Your task to perform on an android device: add a contact Image 0: 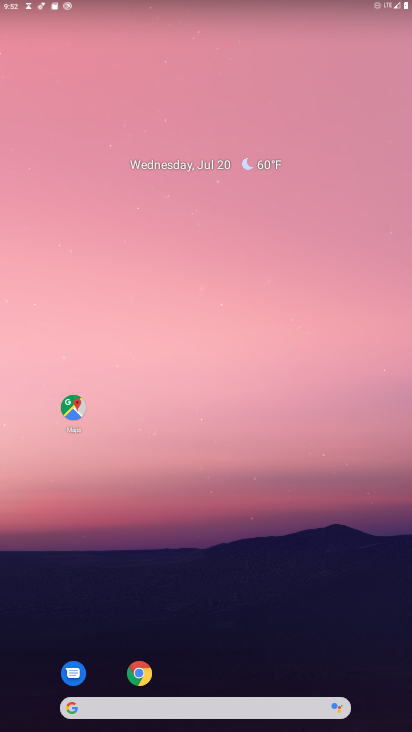
Step 0: drag from (215, 643) to (214, 217)
Your task to perform on an android device: add a contact Image 1: 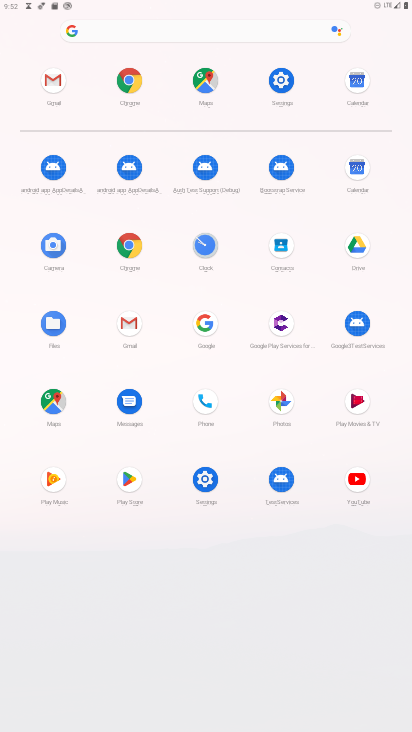
Step 1: click (280, 254)
Your task to perform on an android device: add a contact Image 2: 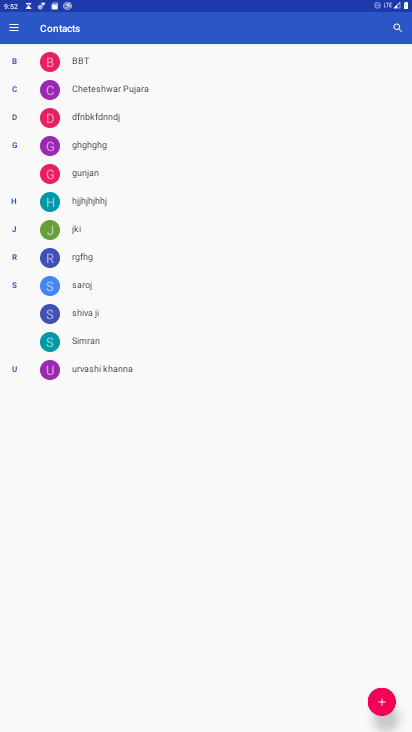
Step 2: click (380, 698)
Your task to perform on an android device: add a contact Image 3: 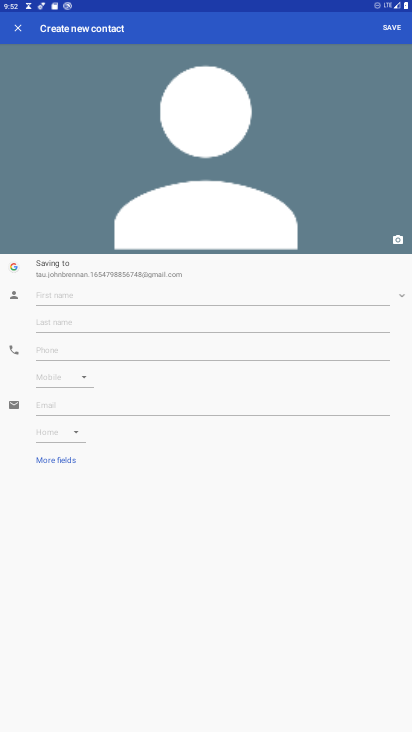
Step 3: click (113, 293)
Your task to perform on an android device: add a contact Image 4: 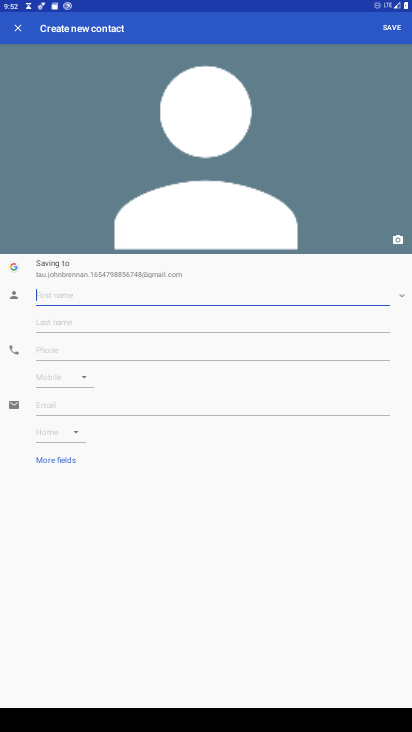
Step 4: type "Vinny"
Your task to perform on an android device: add a contact Image 5: 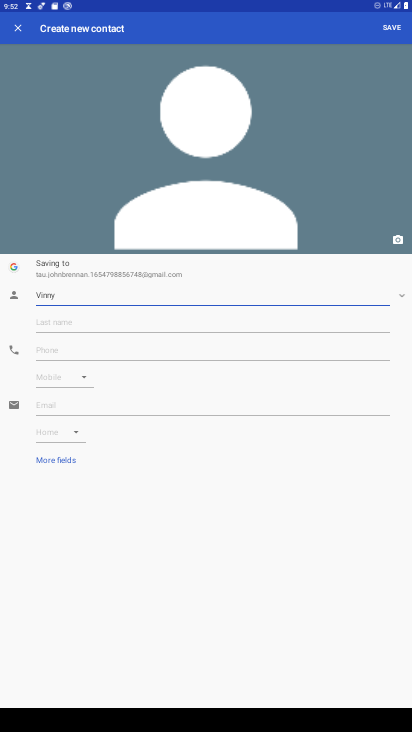
Step 5: click (96, 350)
Your task to perform on an android device: add a contact Image 6: 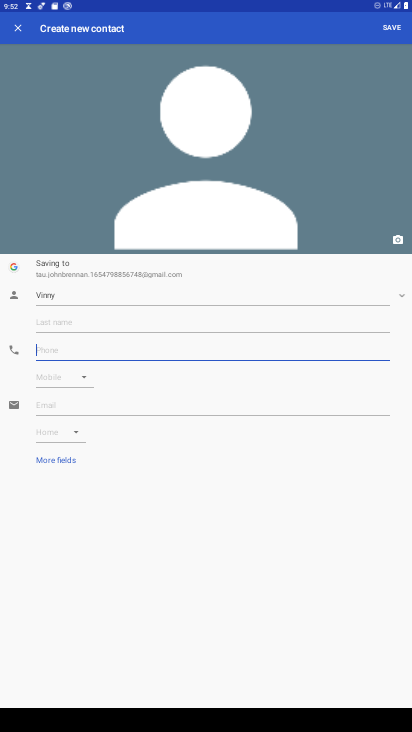
Step 6: type "8689867800"
Your task to perform on an android device: add a contact Image 7: 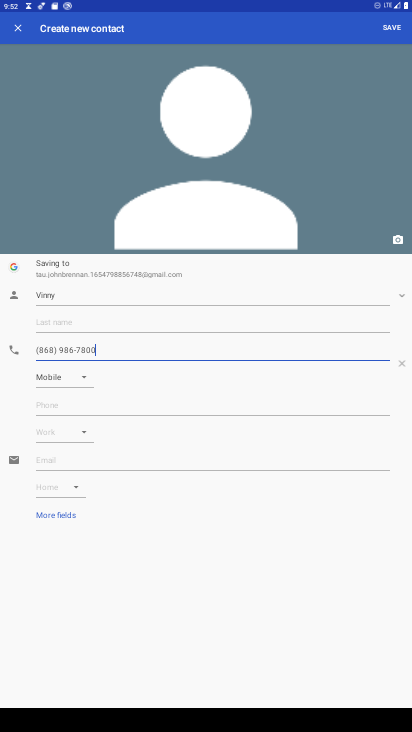
Step 7: click (389, 31)
Your task to perform on an android device: add a contact Image 8: 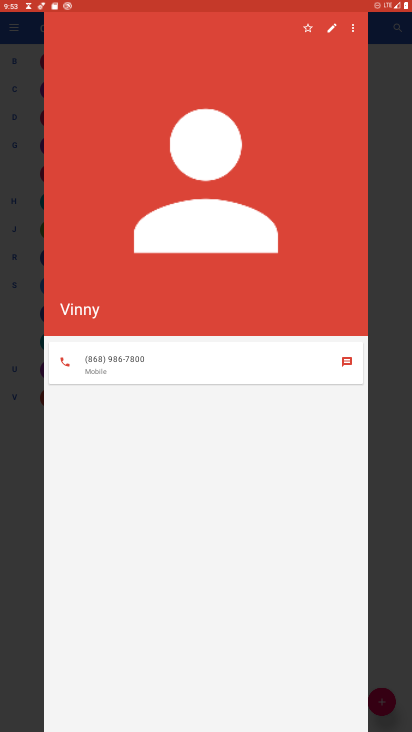
Step 8: task complete